Your task to perform on an android device: Open sound settings Image 0: 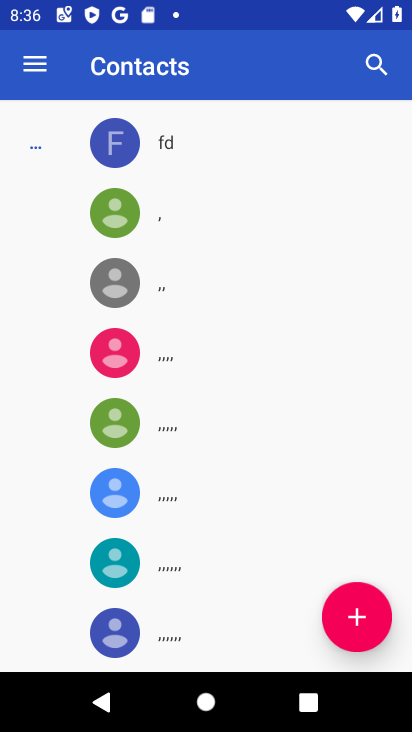
Step 0: press home button
Your task to perform on an android device: Open sound settings Image 1: 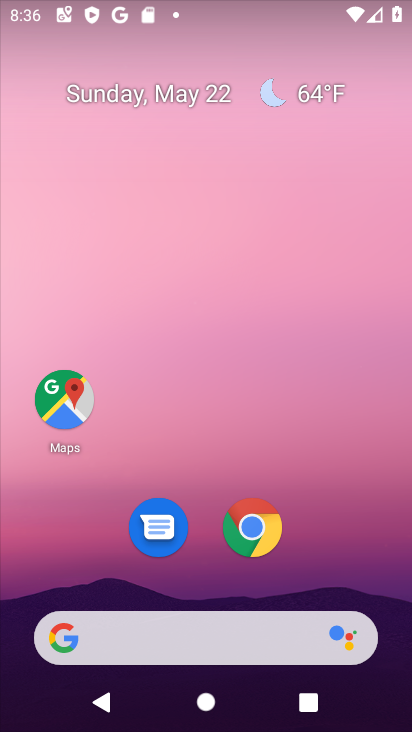
Step 1: drag from (206, 562) to (236, 126)
Your task to perform on an android device: Open sound settings Image 2: 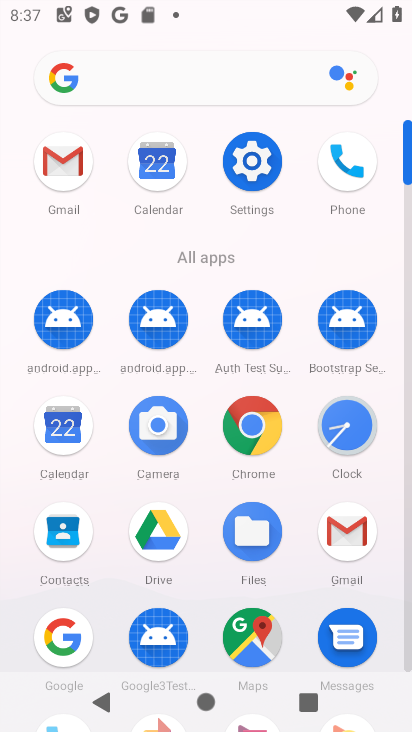
Step 2: click (248, 157)
Your task to perform on an android device: Open sound settings Image 3: 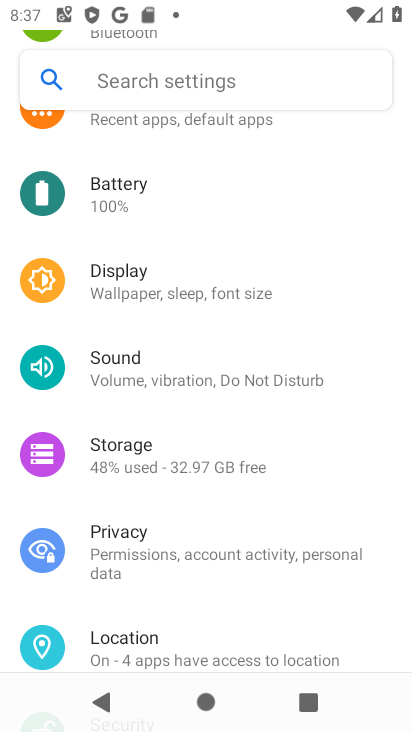
Step 3: drag from (196, 211) to (227, 560)
Your task to perform on an android device: Open sound settings Image 4: 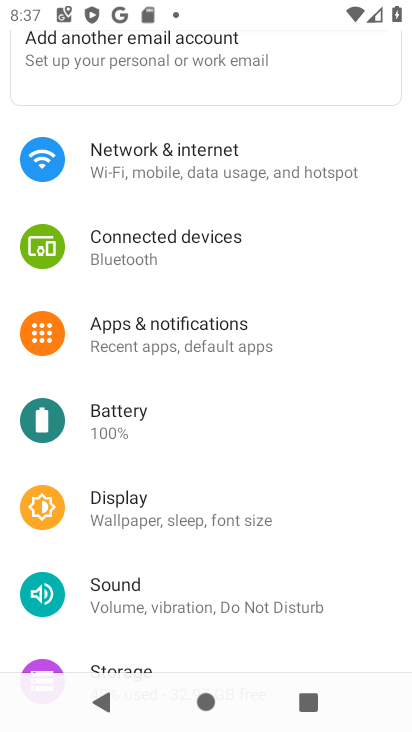
Step 4: click (150, 595)
Your task to perform on an android device: Open sound settings Image 5: 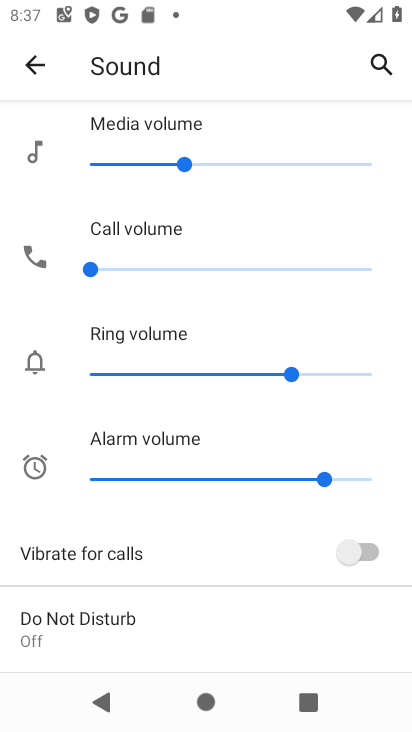
Step 5: task complete